Your task to perform on an android device: open chrome and create a bookmark for the current page Image 0: 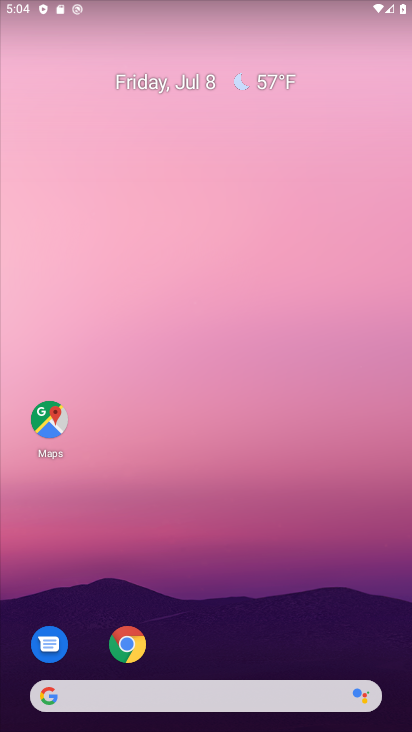
Step 0: click (126, 645)
Your task to perform on an android device: open chrome and create a bookmark for the current page Image 1: 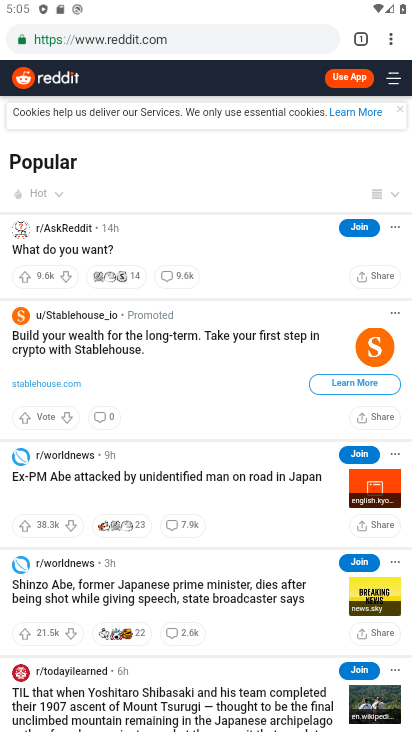
Step 1: click (391, 43)
Your task to perform on an android device: open chrome and create a bookmark for the current page Image 2: 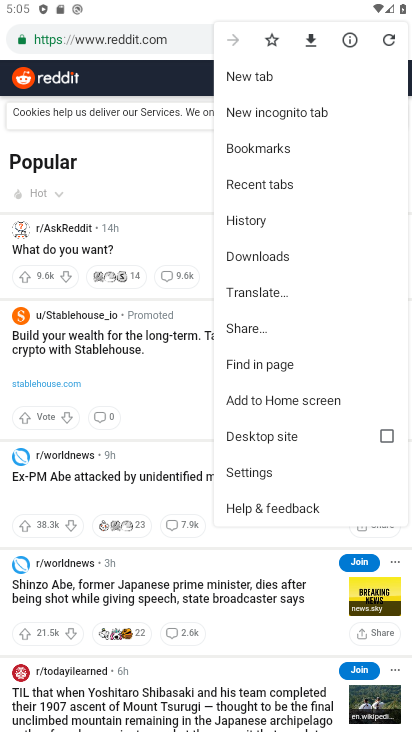
Step 2: click (272, 37)
Your task to perform on an android device: open chrome and create a bookmark for the current page Image 3: 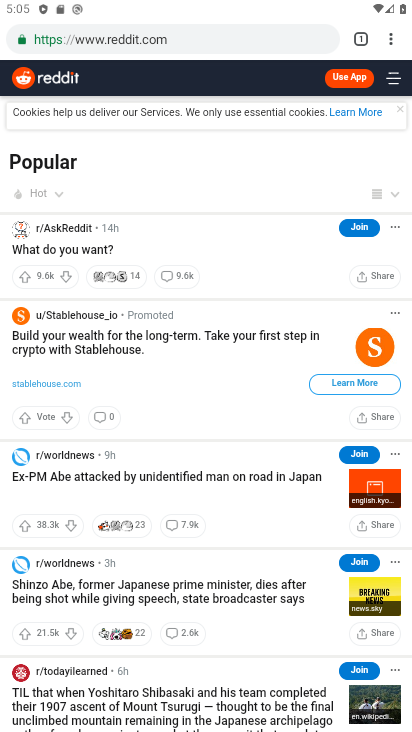
Step 3: task complete